Your task to perform on an android device: Open settings on Google Maps Image 0: 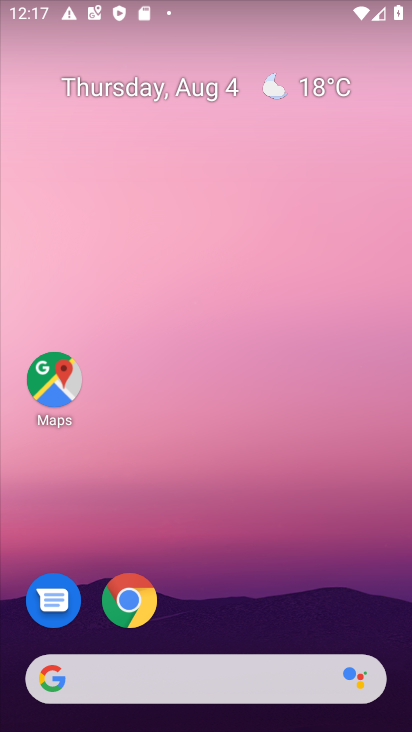
Step 0: press home button
Your task to perform on an android device: Open settings on Google Maps Image 1: 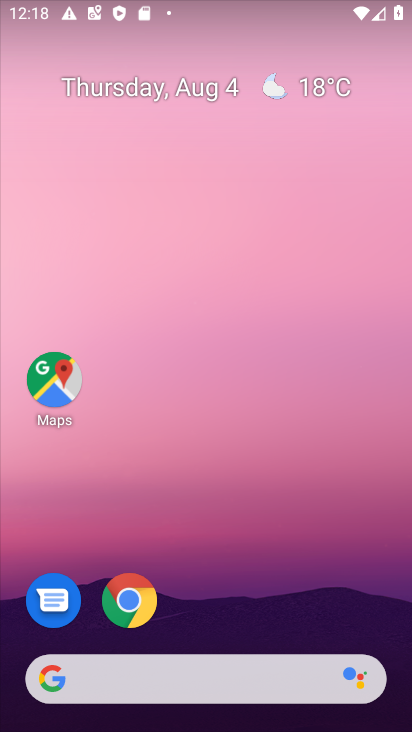
Step 1: click (57, 385)
Your task to perform on an android device: Open settings on Google Maps Image 2: 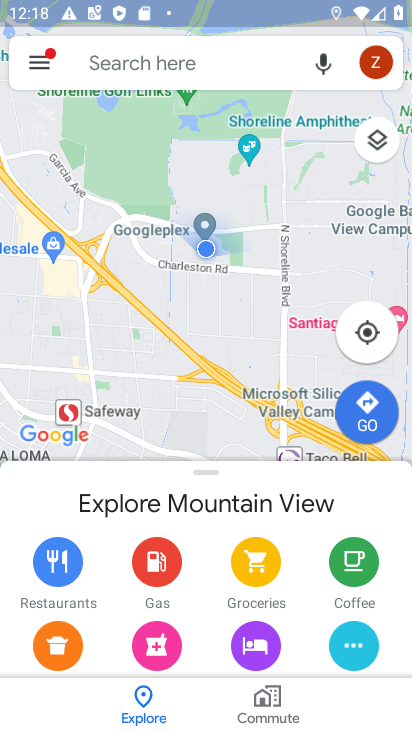
Step 2: task complete